Your task to perform on an android device: add a contact in the contacts app Image 0: 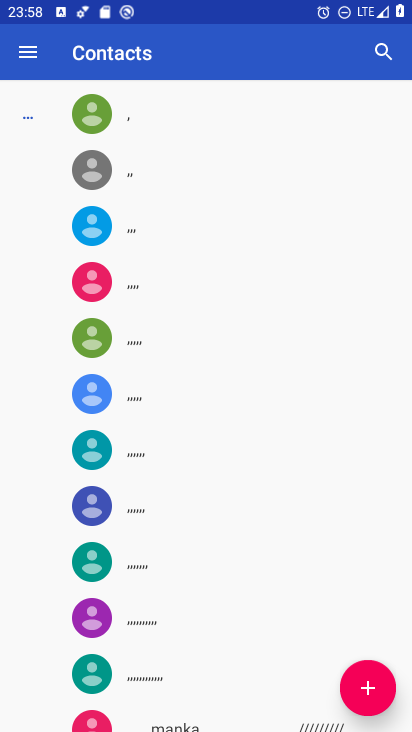
Step 0: click (372, 687)
Your task to perform on an android device: add a contact in the contacts app Image 1: 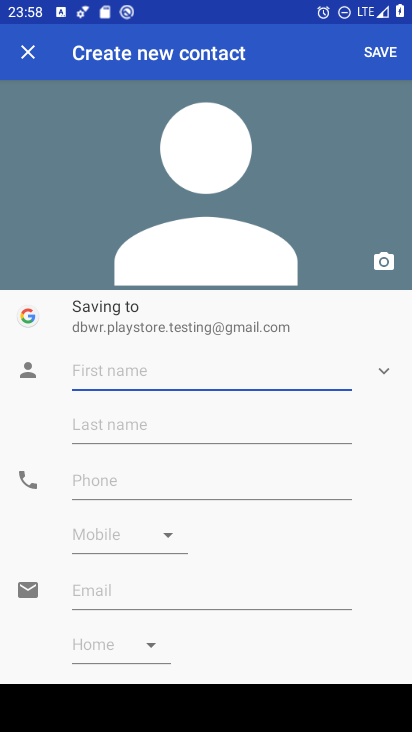
Step 1: type "oyutyrjghg"
Your task to perform on an android device: add a contact in the contacts app Image 2: 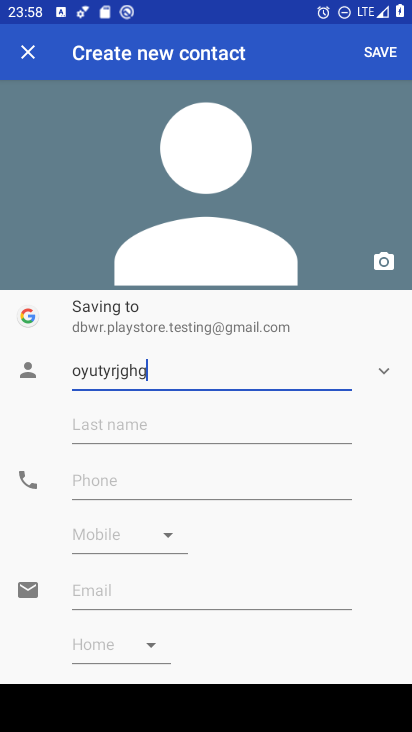
Step 2: click (146, 482)
Your task to perform on an android device: add a contact in the contacts app Image 3: 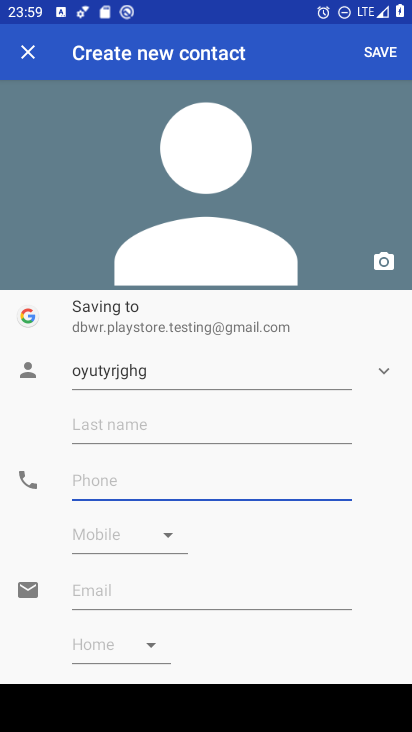
Step 3: type "0987654"
Your task to perform on an android device: add a contact in the contacts app Image 4: 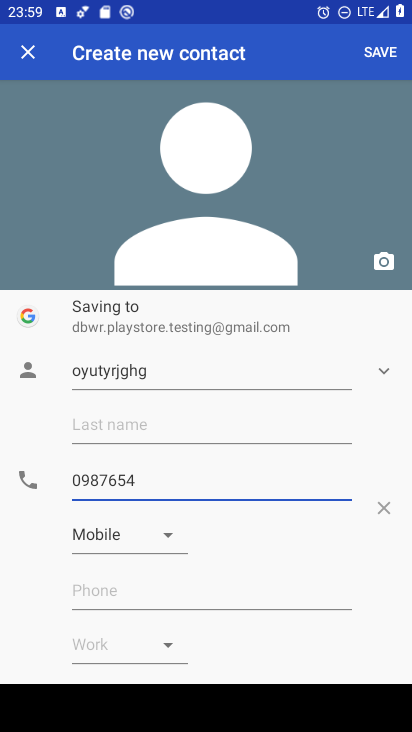
Step 4: click (383, 50)
Your task to perform on an android device: add a contact in the contacts app Image 5: 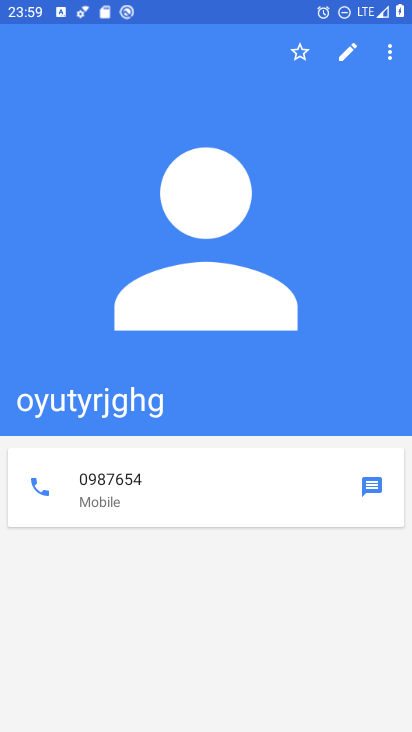
Step 5: task complete